Your task to perform on an android device: Open internet settings Image 0: 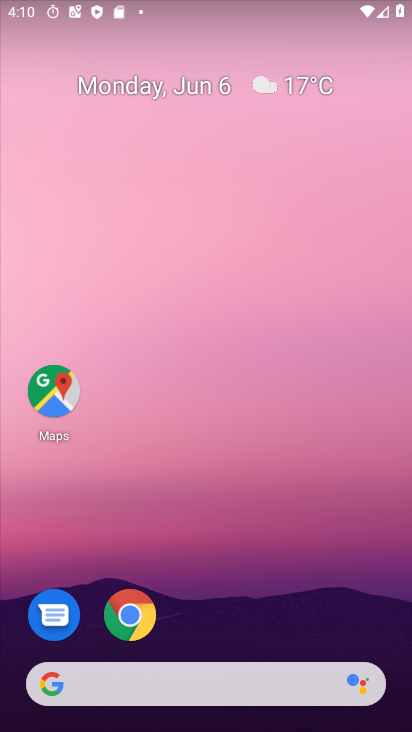
Step 0: drag from (288, 687) to (235, 11)
Your task to perform on an android device: Open internet settings Image 1: 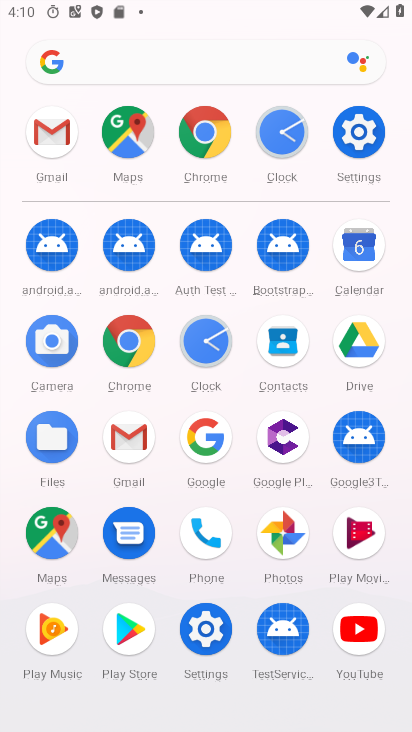
Step 1: click (348, 117)
Your task to perform on an android device: Open internet settings Image 2: 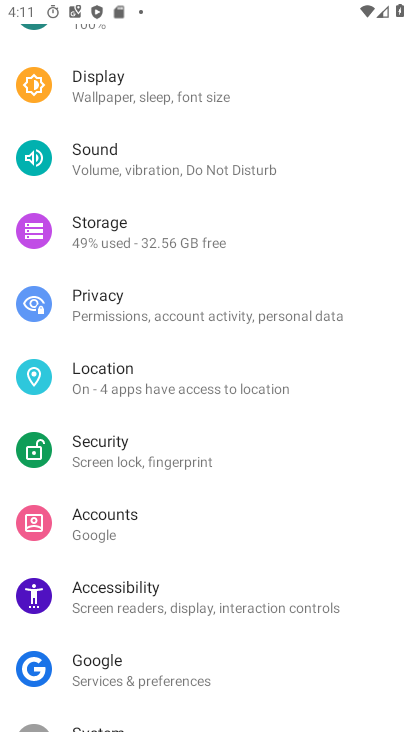
Step 2: drag from (215, 144) to (239, 719)
Your task to perform on an android device: Open internet settings Image 3: 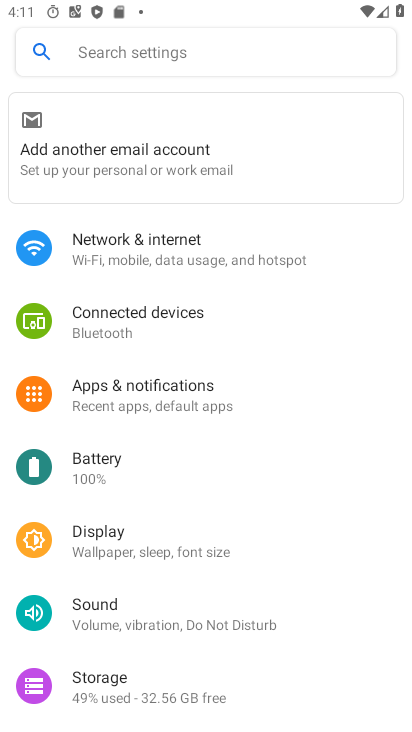
Step 3: click (171, 263)
Your task to perform on an android device: Open internet settings Image 4: 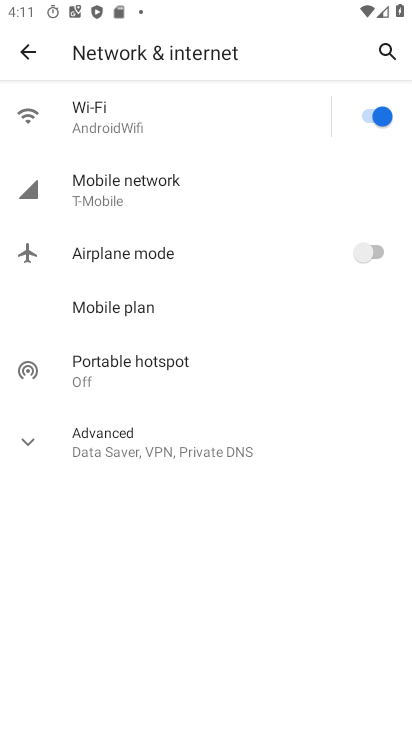
Step 4: task complete